Your task to perform on an android device: open chrome privacy settings Image 0: 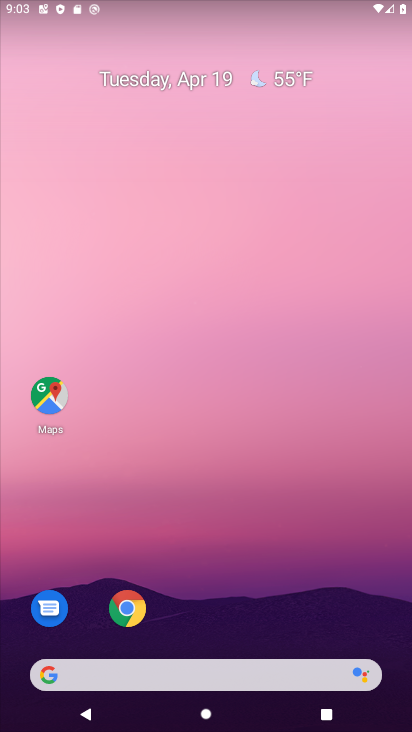
Step 0: click (132, 597)
Your task to perform on an android device: open chrome privacy settings Image 1: 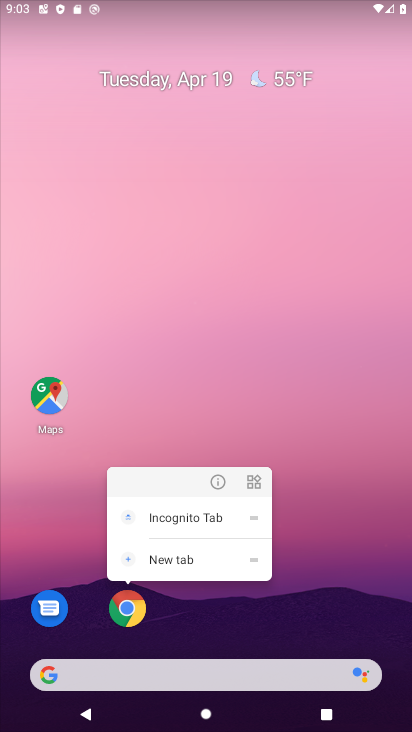
Step 1: click (124, 606)
Your task to perform on an android device: open chrome privacy settings Image 2: 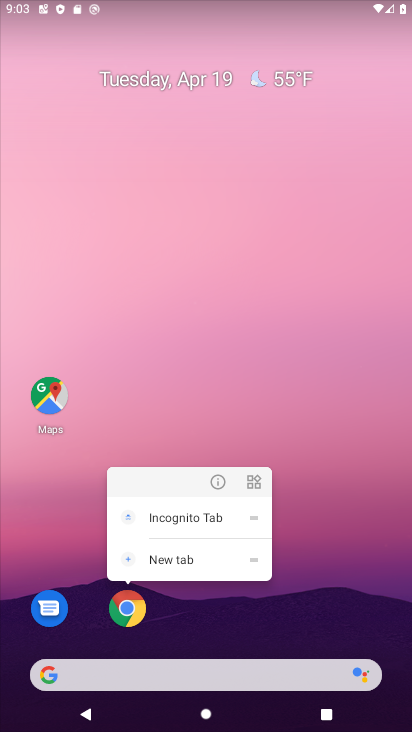
Step 2: click (124, 611)
Your task to perform on an android device: open chrome privacy settings Image 3: 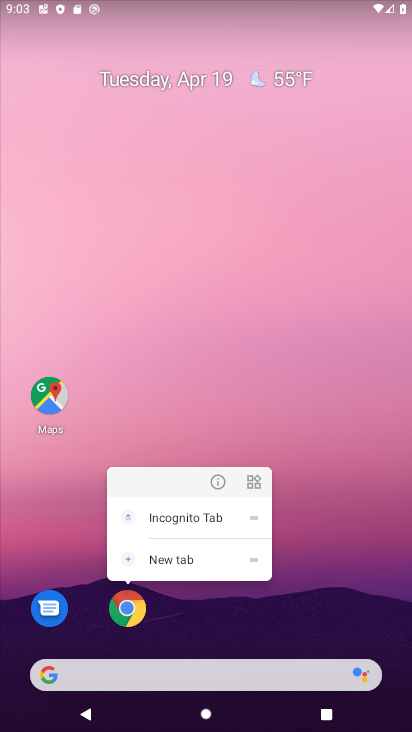
Step 3: click (125, 613)
Your task to perform on an android device: open chrome privacy settings Image 4: 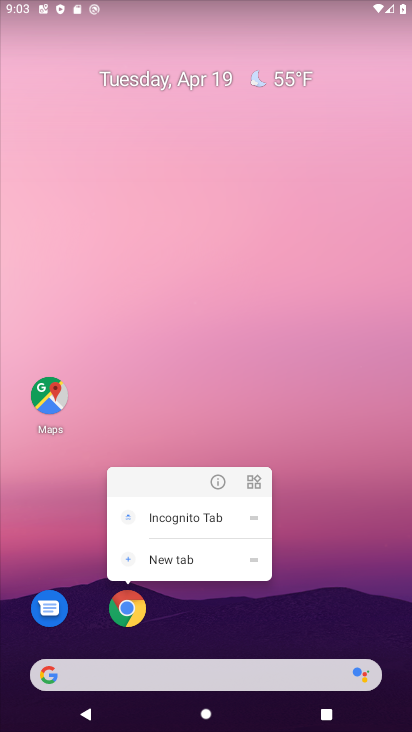
Step 4: click (133, 623)
Your task to perform on an android device: open chrome privacy settings Image 5: 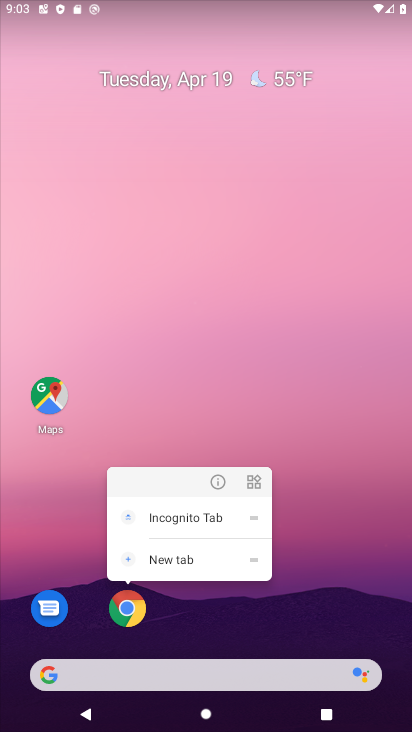
Step 5: click (134, 624)
Your task to perform on an android device: open chrome privacy settings Image 6: 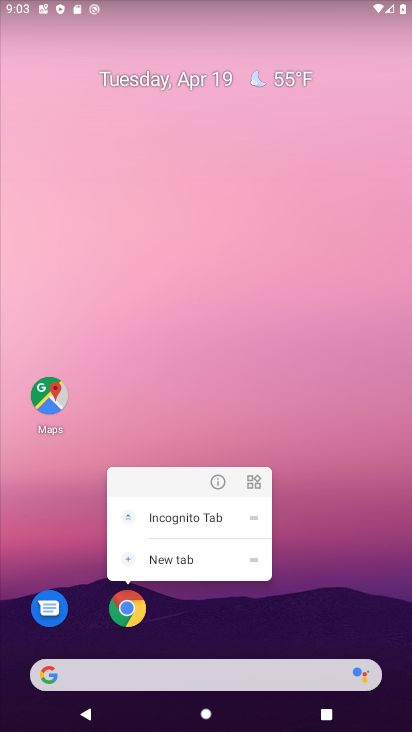
Step 6: click (132, 626)
Your task to perform on an android device: open chrome privacy settings Image 7: 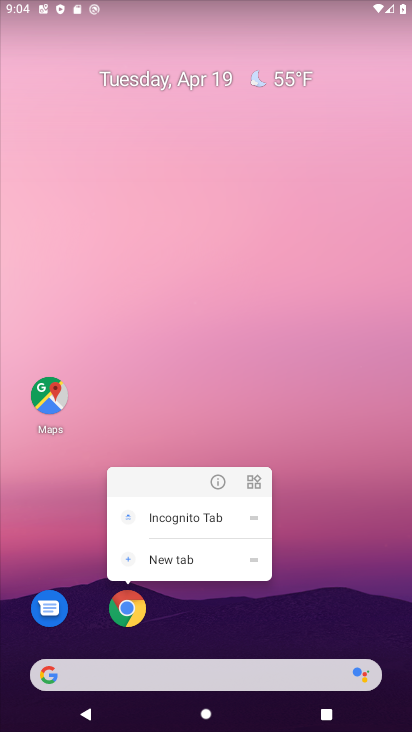
Step 7: click (131, 610)
Your task to perform on an android device: open chrome privacy settings Image 8: 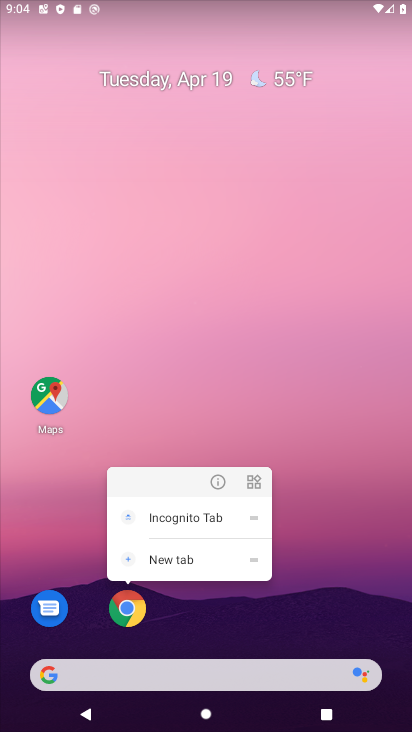
Step 8: click (125, 598)
Your task to perform on an android device: open chrome privacy settings Image 9: 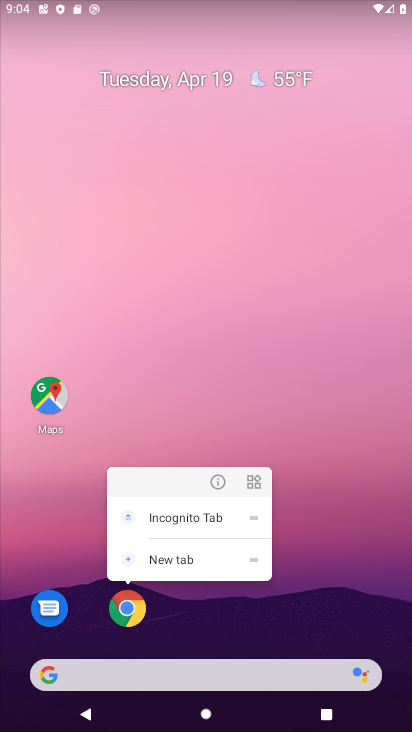
Step 9: click (120, 611)
Your task to perform on an android device: open chrome privacy settings Image 10: 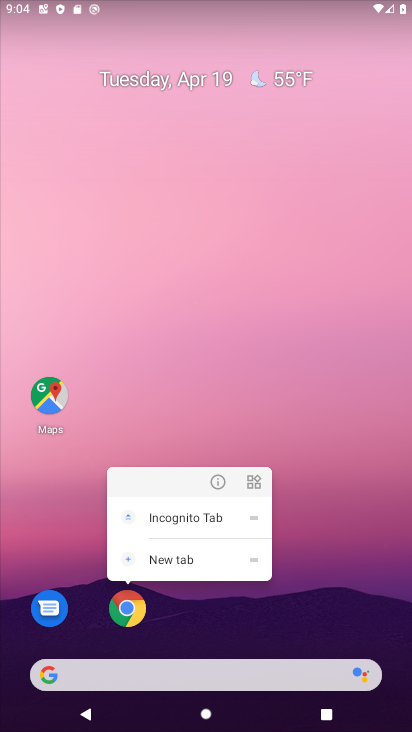
Step 10: click (121, 612)
Your task to perform on an android device: open chrome privacy settings Image 11: 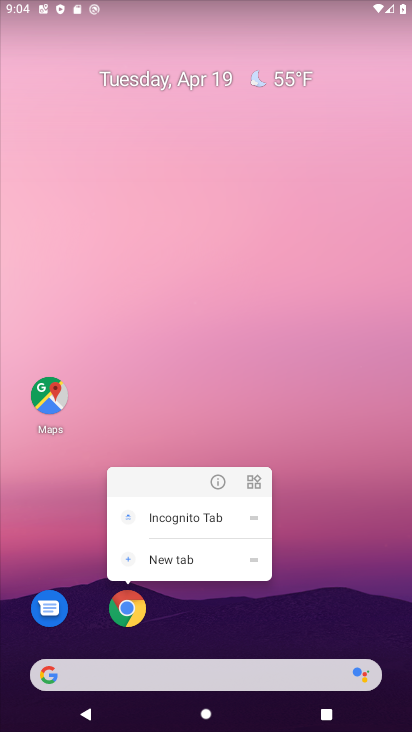
Step 11: click (128, 612)
Your task to perform on an android device: open chrome privacy settings Image 12: 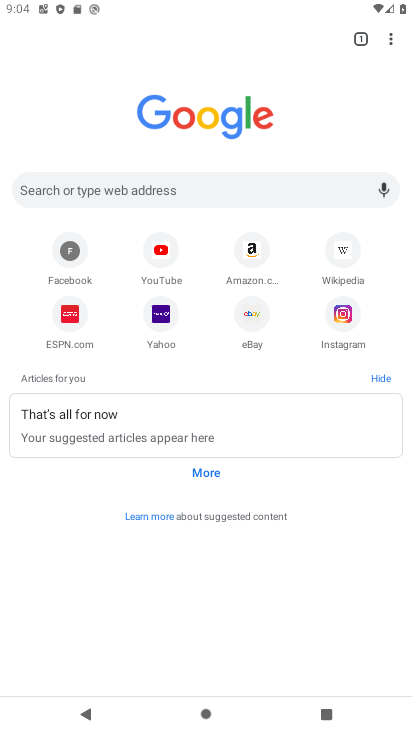
Step 12: click (399, 41)
Your task to perform on an android device: open chrome privacy settings Image 13: 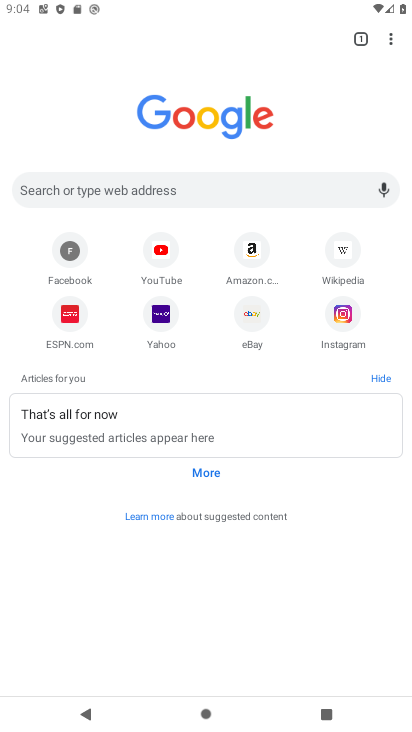
Step 13: drag from (398, 41) to (320, 316)
Your task to perform on an android device: open chrome privacy settings Image 14: 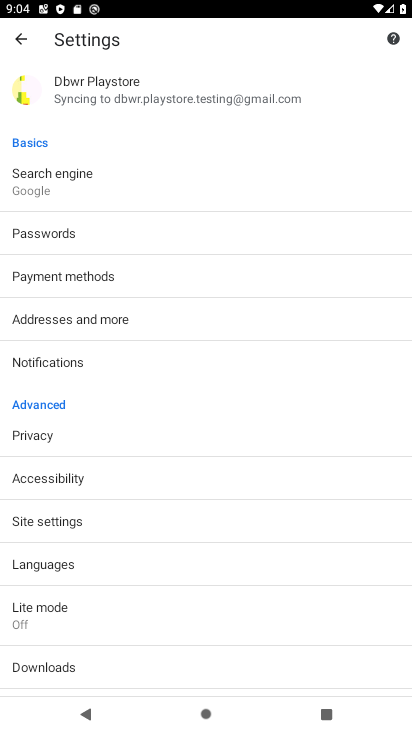
Step 14: click (122, 432)
Your task to perform on an android device: open chrome privacy settings Image 15: 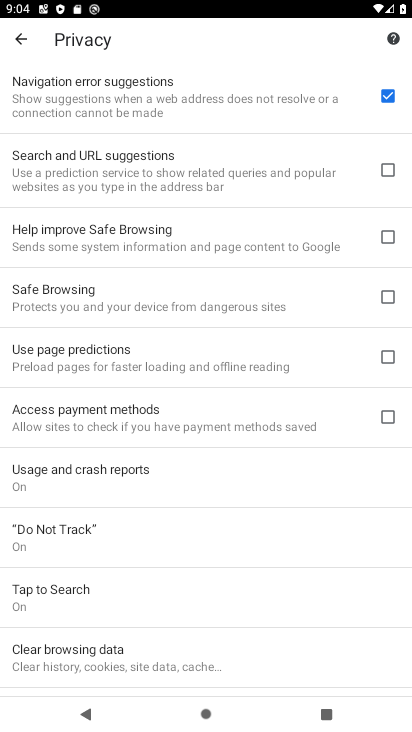
Step 15: task complete